Your task to perform on an android device: Open Youtube and go to "Your channel" Image 0: 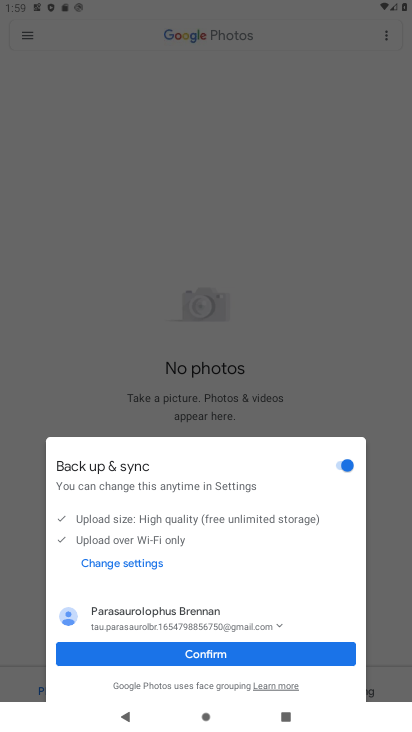
Step 0: press home button
Your task to perform on an android device: Open Youtube and go to "Your channel" Image 1: 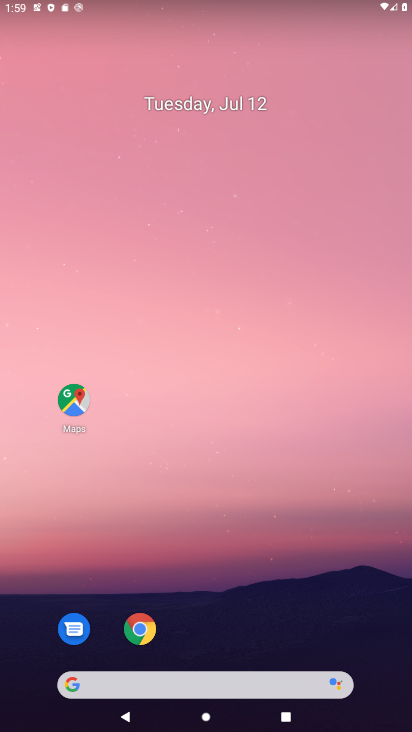
Step 1: drag from (275, 613) to (275, 196)
Your task to perform on an android device: Open Youtube and go to "Your channel" Image 2: 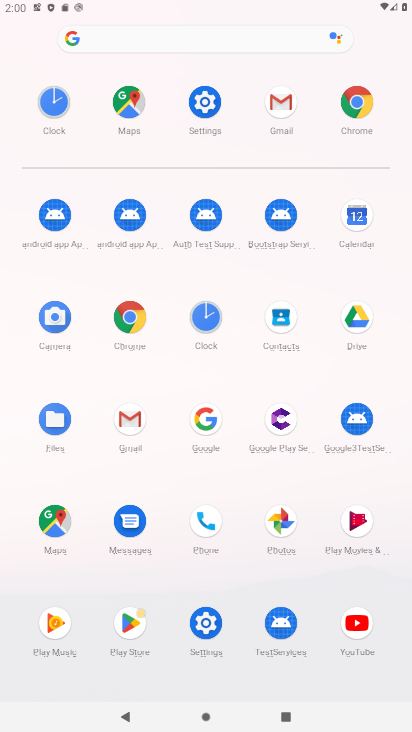
Step 2: click (356, 626)
Your task to perform on an android device: Open Youtube and go to "Your channel" Image 3: 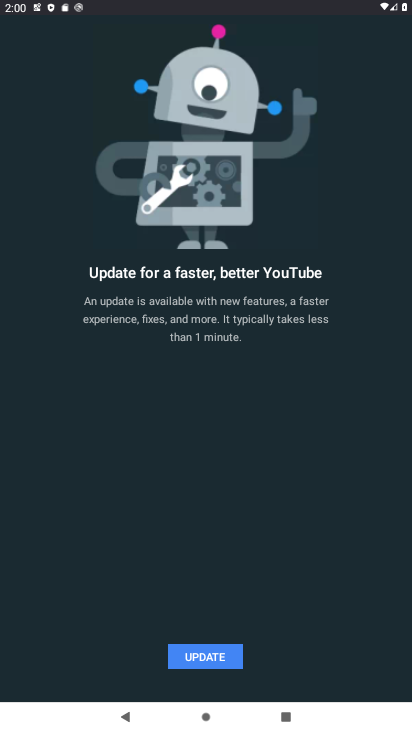
Step 3: click (222, 652)
Your task to perform on an android device: Open Youtube and go to "Your channel" Image 4: 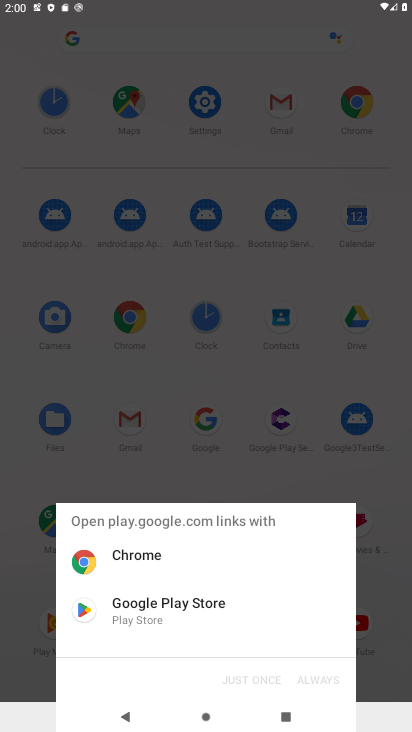
Step 4: click (209, 615)
Your task to perform on an android device: Open Youtube and go to "Your channel" Image 5: 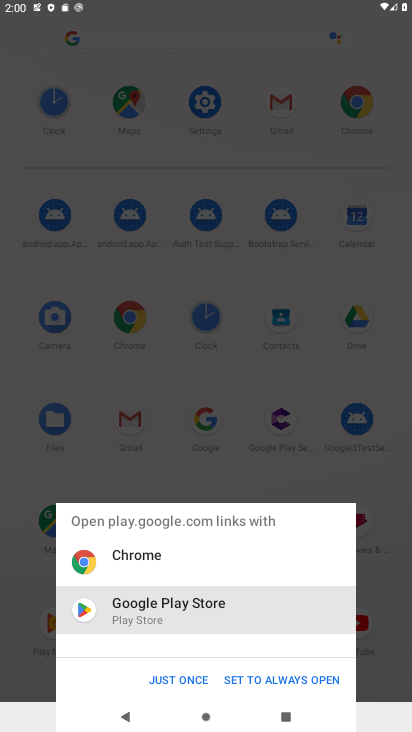
Step 5: click (181, 673)
Your task to perform on an android device: Open Youtube and go to "Your channel" Image 6: 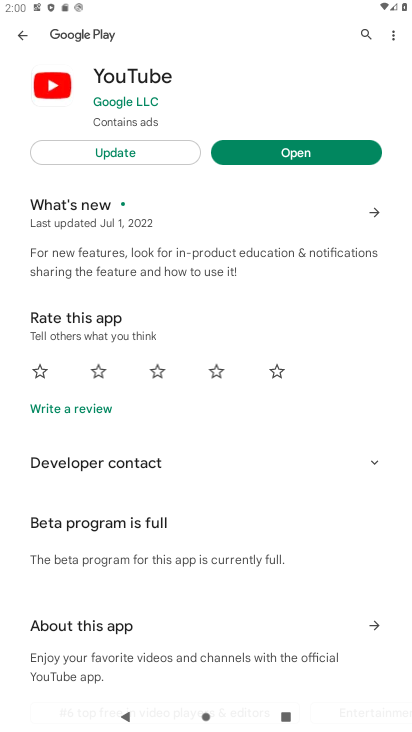
Step 6: click (147, 141)
Your task to perform on an android device: Open Youtube and go to "Your channel" Image 7: 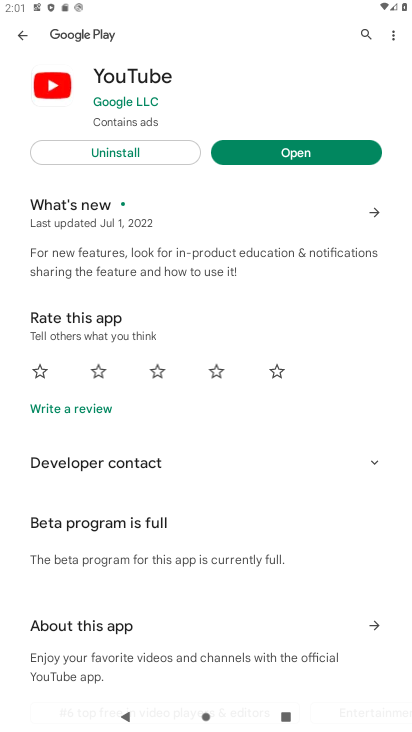
Step 7: click (289, 146)
Your task to perform on an android device: Open Youtube and go to "Your channel" Image 8: 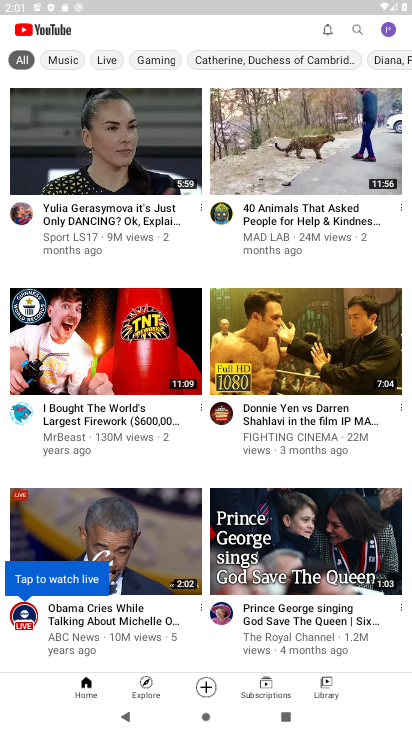
Step 8: click (385, 25)
Your task to perform on an android device: Open Youtube and go to "Your channel" Image 9: 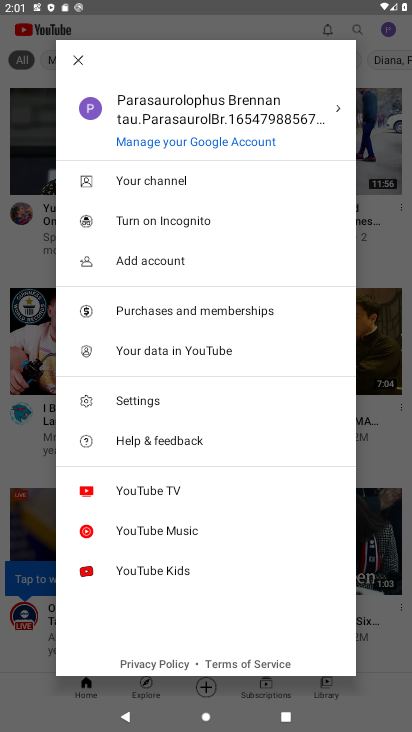
Step 9: click (189, 178)
Your task to perform on an android device: Open Youtube and go to "Your channel" Image 10: 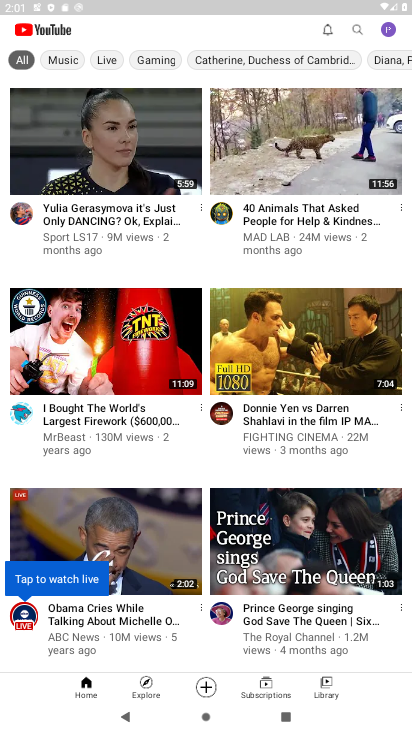
Step 10: task complete